Your task to perform on an android device: open sync settings in chrome Image 0: 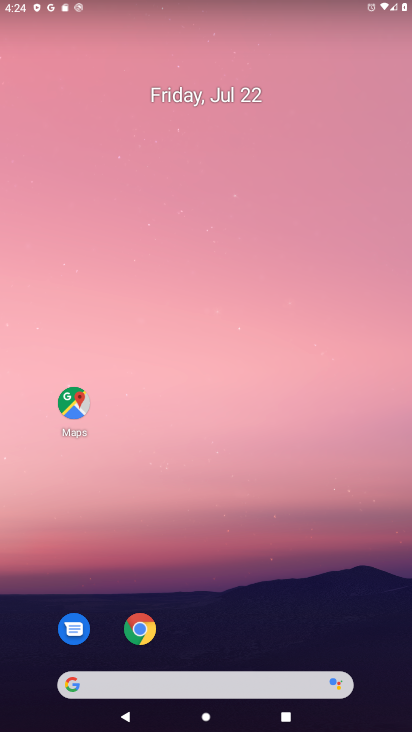
Step 0: drag from (155, 698) to (207, 184)
Your task to perform on an android device: open sync settings in chrome Image 1: 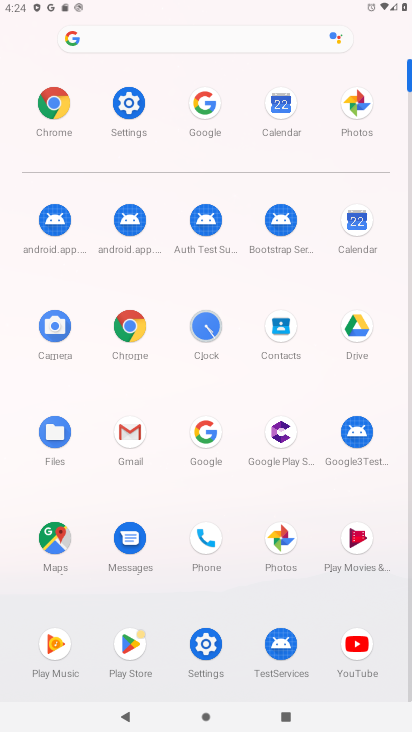
Step 1: click (136, 349)
Your task to perform on an android device: open sync settings in chrome Image 2: 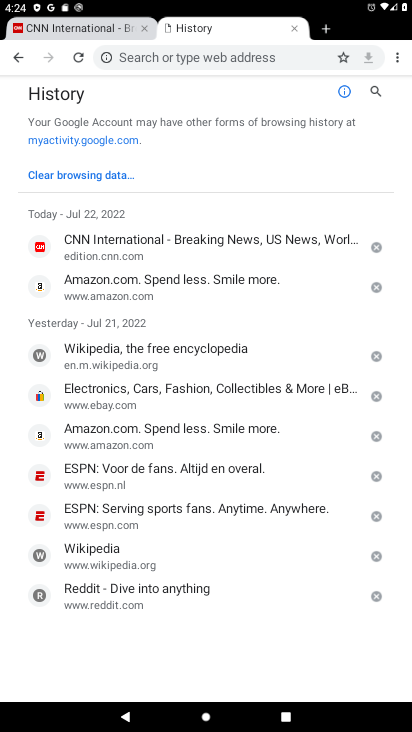
Step 2: click (401, 60)
Your task to perform on an android device: open sync settings in chrome Image 3: 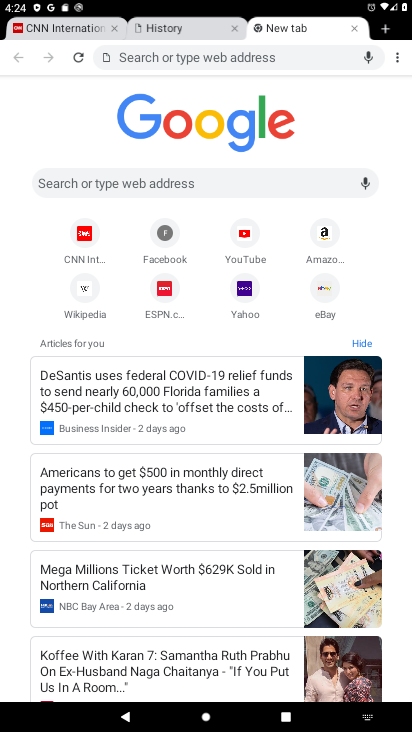
Step 3: click (392, 62)
Your task to perform on an android device: open sync settings in chrome Image 4: 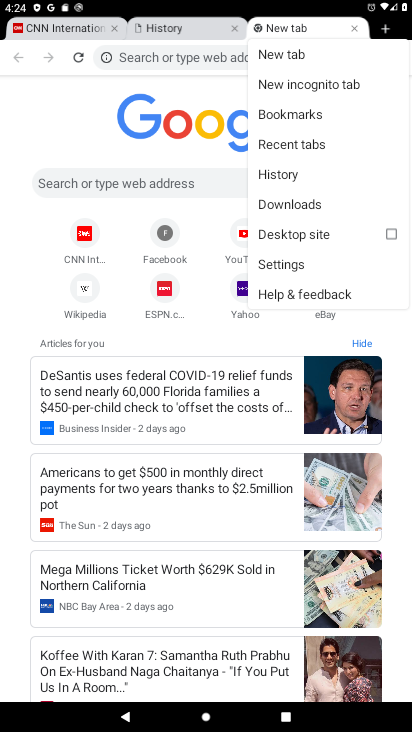
Step 4: click (297, 260)
Your task to perform on an android device: open sync settings in chrome Image 5: 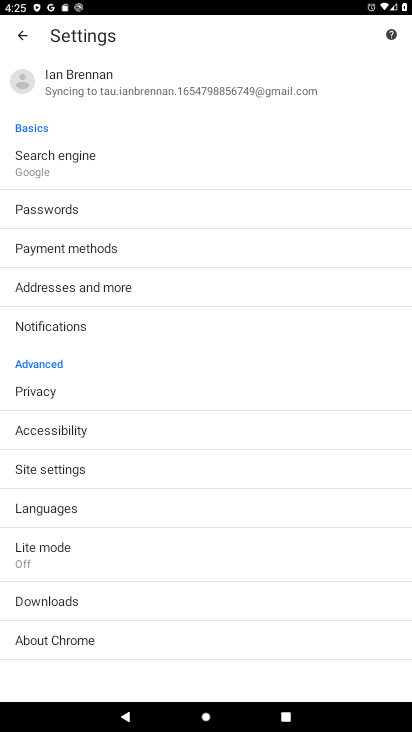
Step 5: click (130, 95)
Your task to perform on an android device: open sync settings in chrome Image 6: 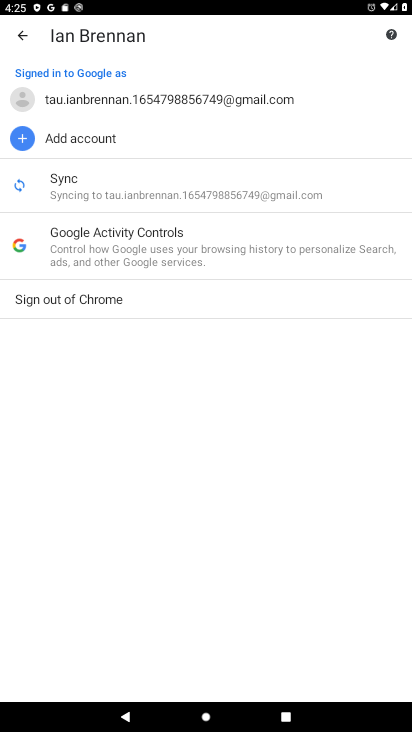
Step 6: click (128, 196)
Your task to perform on an android device: open sync settings in chrome Image 7: 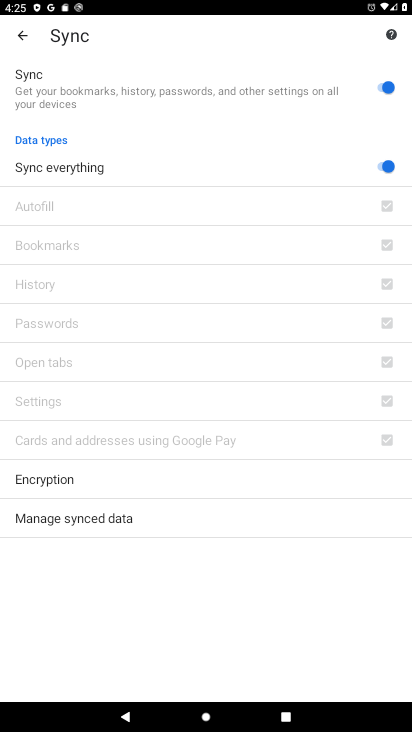
Step 7: task complete